Your task to perform on an android device: Open display settings Image 0: 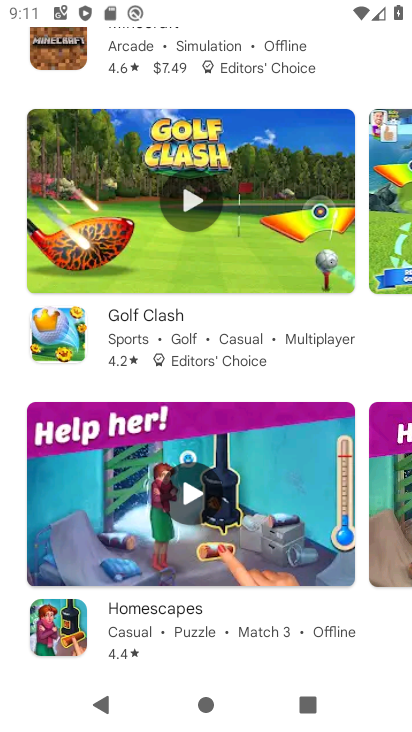
Step 0: press home button
Your task to perform on an android device: Open display settings Image 1: 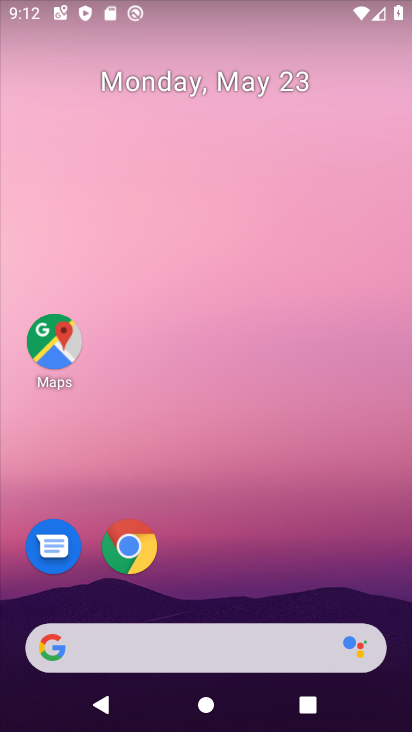
Step 1: drag from (392, 610) to (281, 123)
Your task to perform on an android device: Open display settings Image 2: 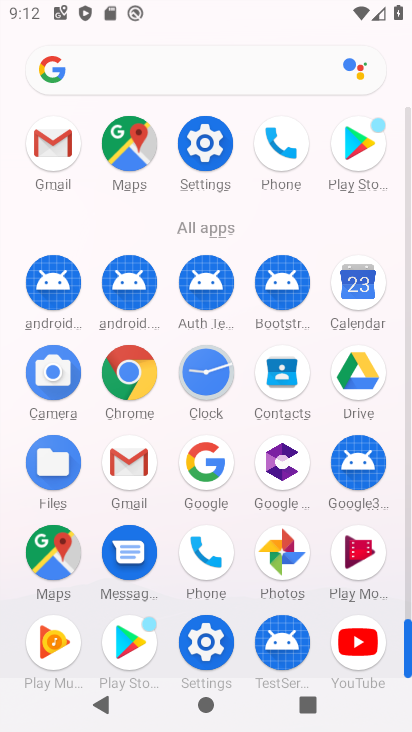
Step 2: click (207, 644)
Your task to perform on an android device: Open display settings Image 3: 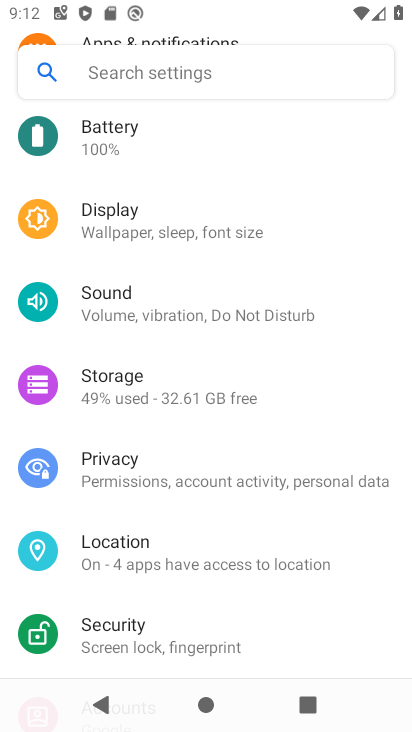
Step 3: click (104, 210)
Your task to perform on an android device: Open display settings Image 4: 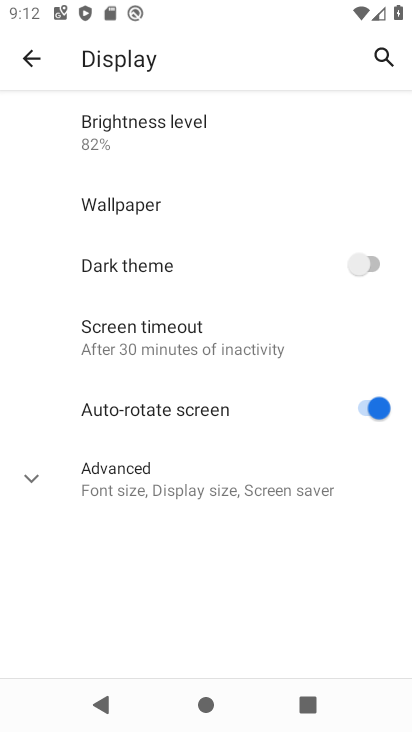
Step 4: click (24, 479)
Your task to perform on an android device: Open display settings Image 5: 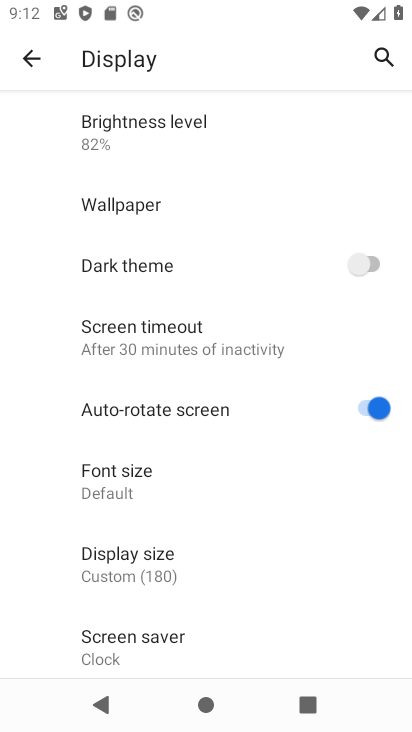
Step 5: task complete